Your task to perform on an android device: turn on showing notifications on the lock screen Image 0: 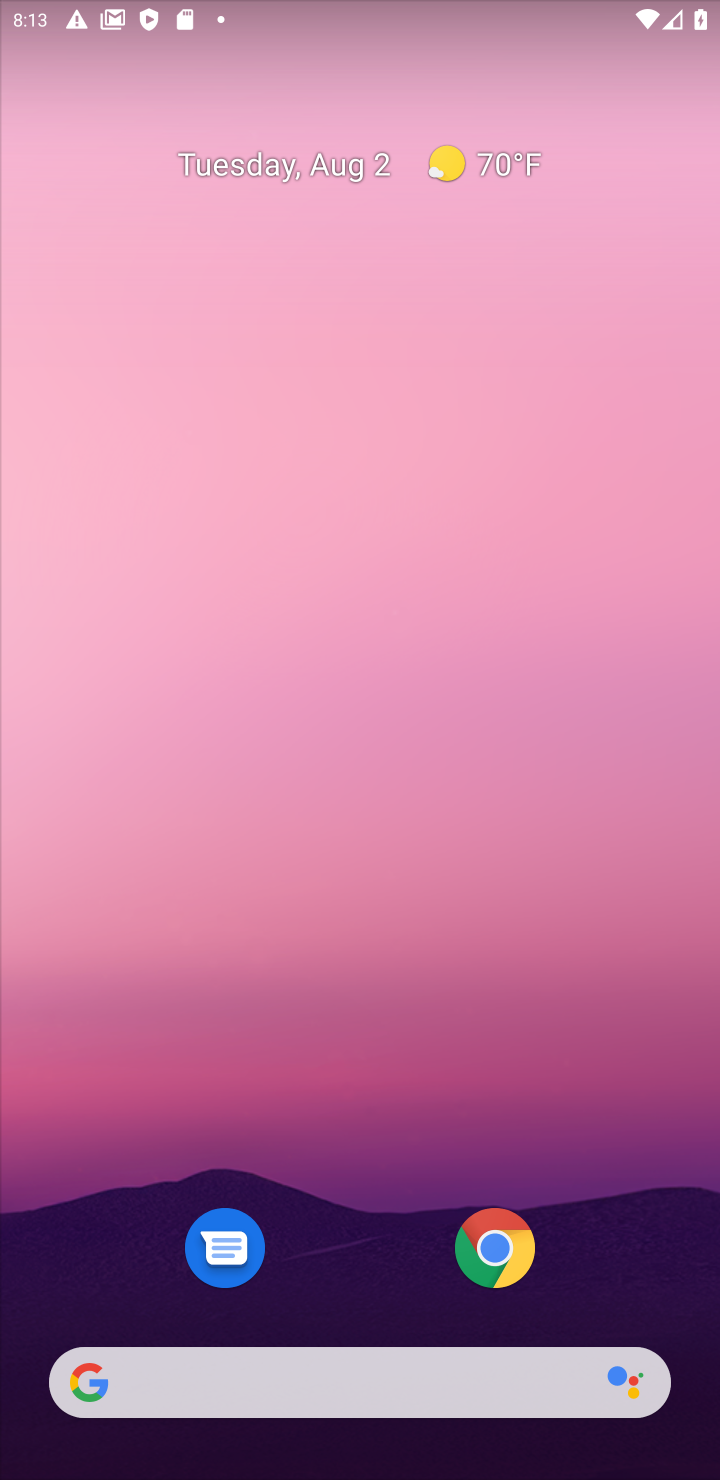
Step 0: press home button
Your task to perform on an android device: turn on showing notifications on the lock screen Image 1: 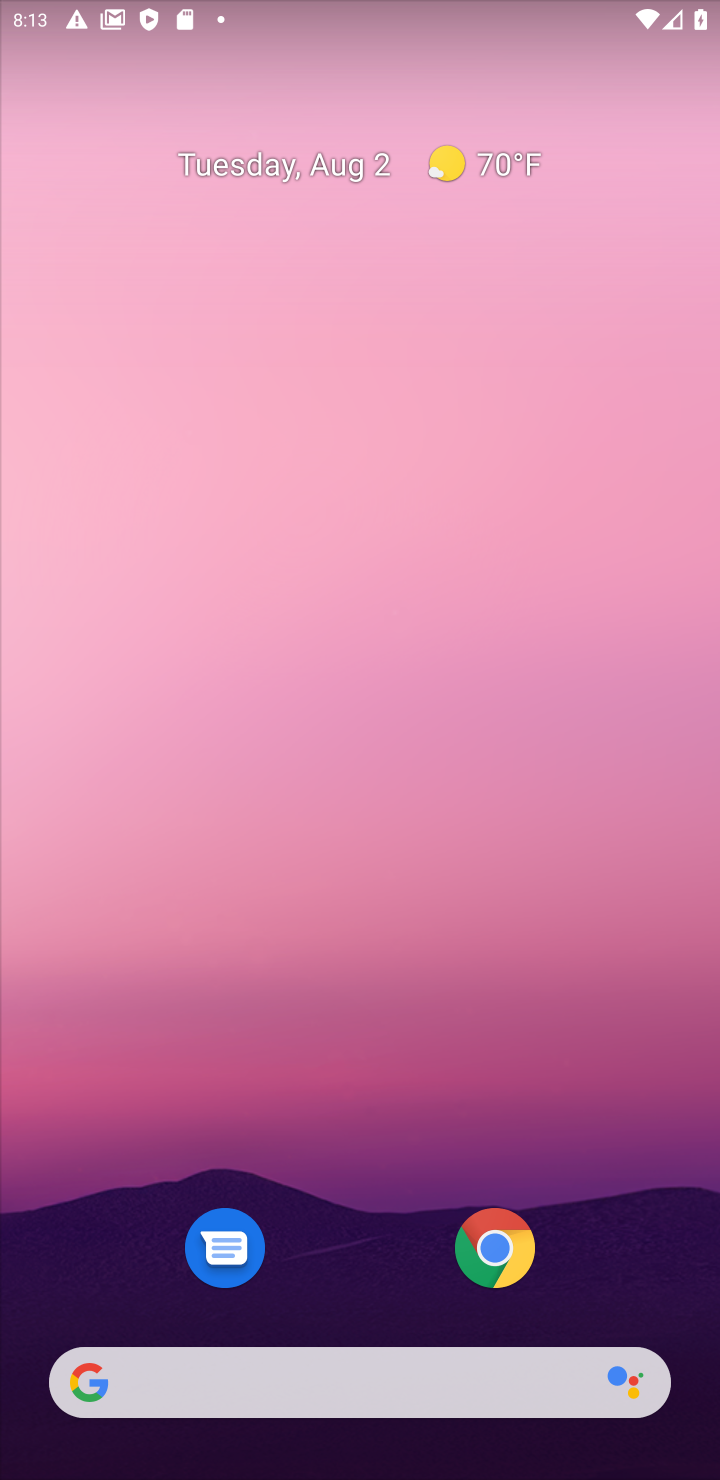
Step 1: drag from (340, 1282) to (394, 147)
Your task to perform on an android device: turn on showing notifications on the lock screen Image 2: 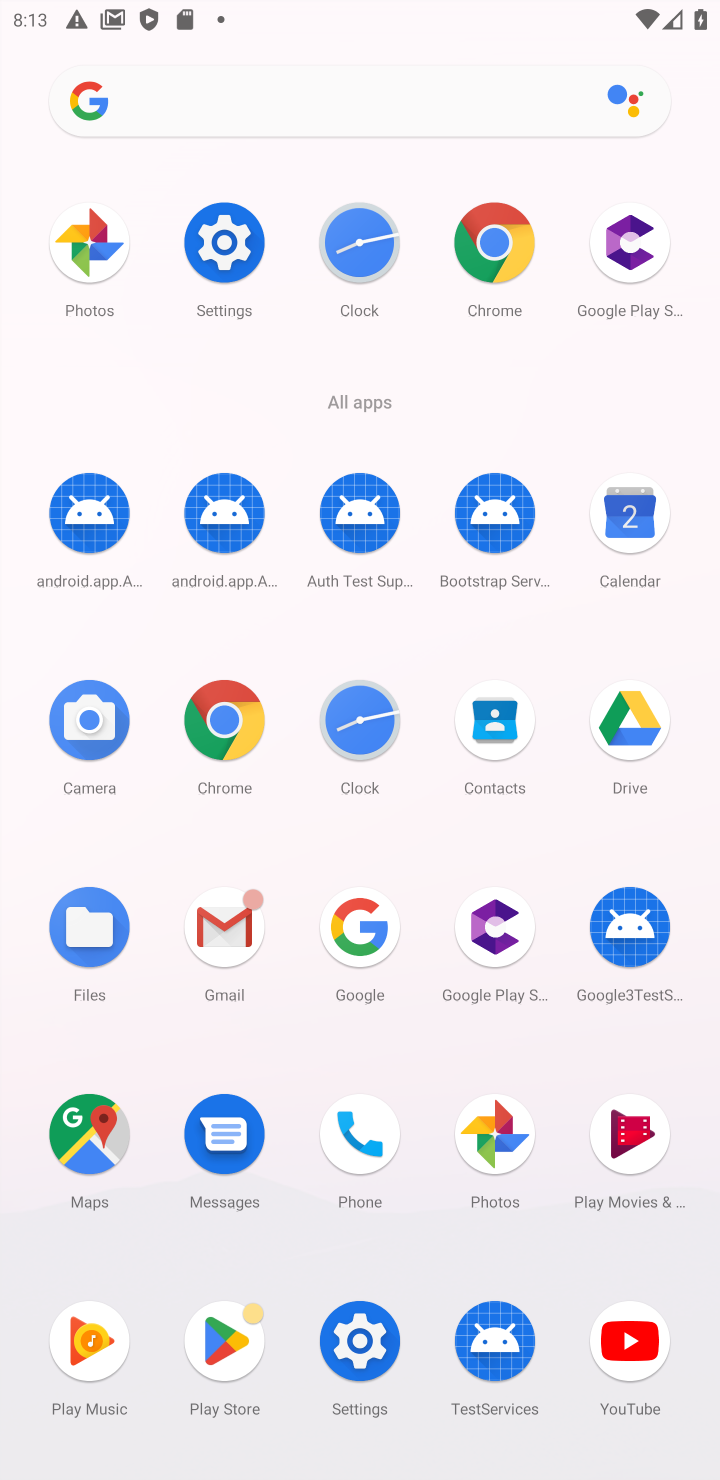
Step 2: click (341, 1334)
Your task to perform on an android device: turn on showing notifications on the lock screen Image 3: 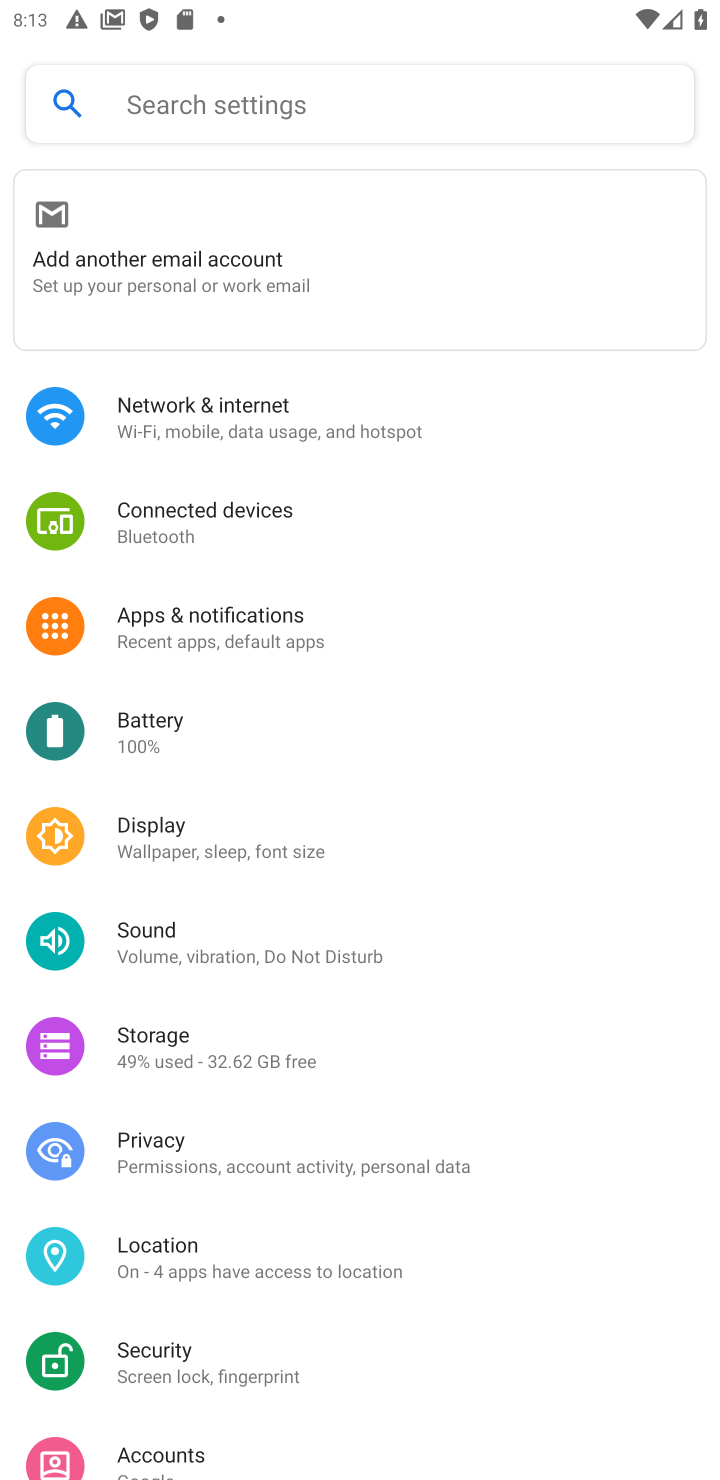
Step 3: click (155, 611)
Your task to perform on an android device: turn on showing notifications on the lock screen Image 4: 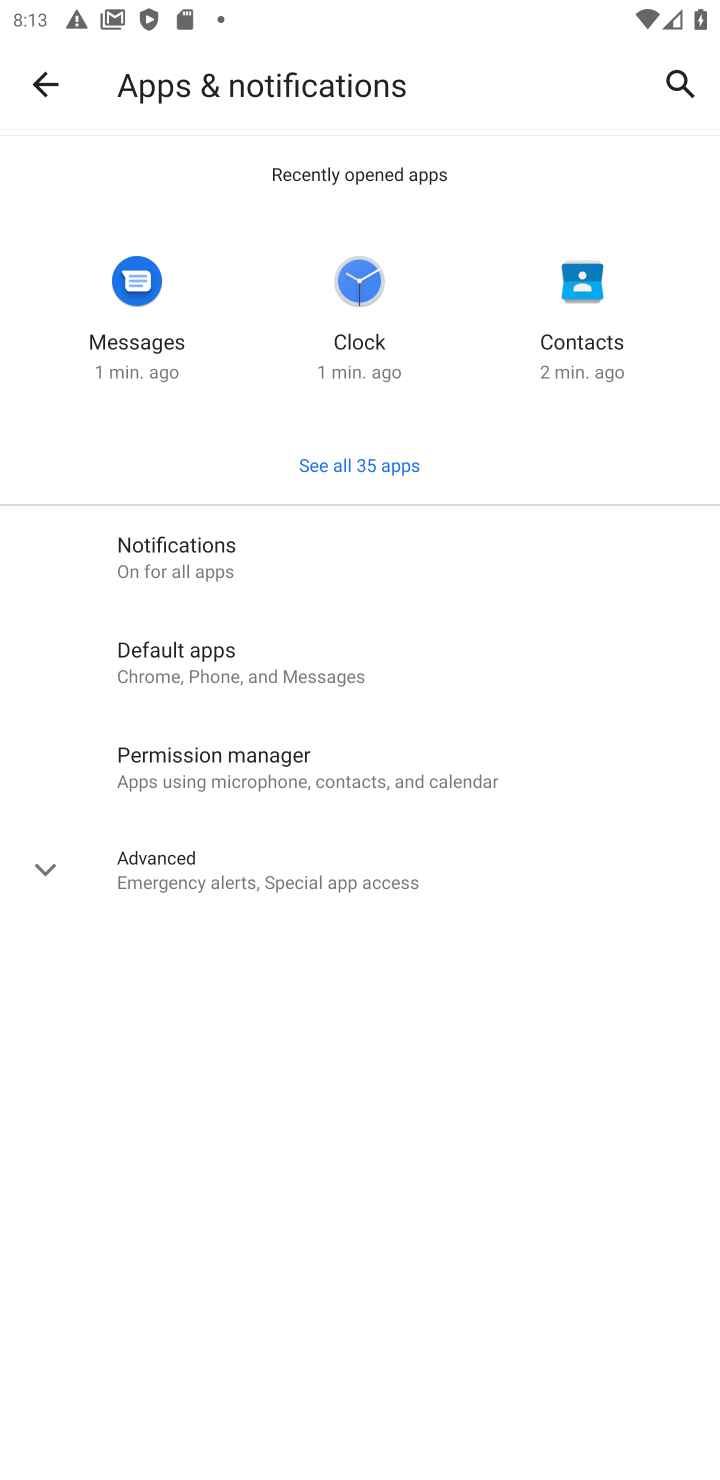
Step 4: click (173, 545)
Your task to perform on an android device: turn on showing notifications on the lock screen Image 5: 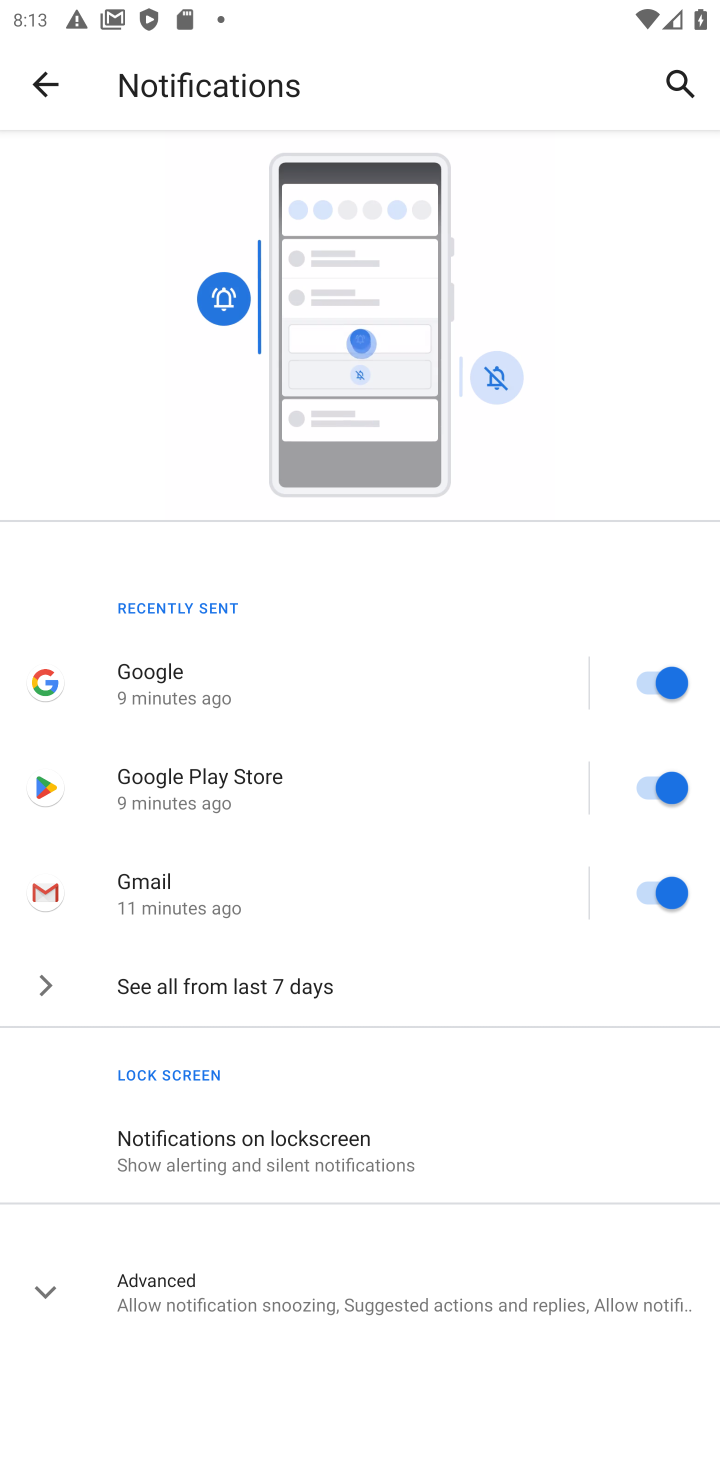
Step 5: click (176, 1151)
Your task to perform on an android device: turn on showing notifications on the lock screen Image 6: 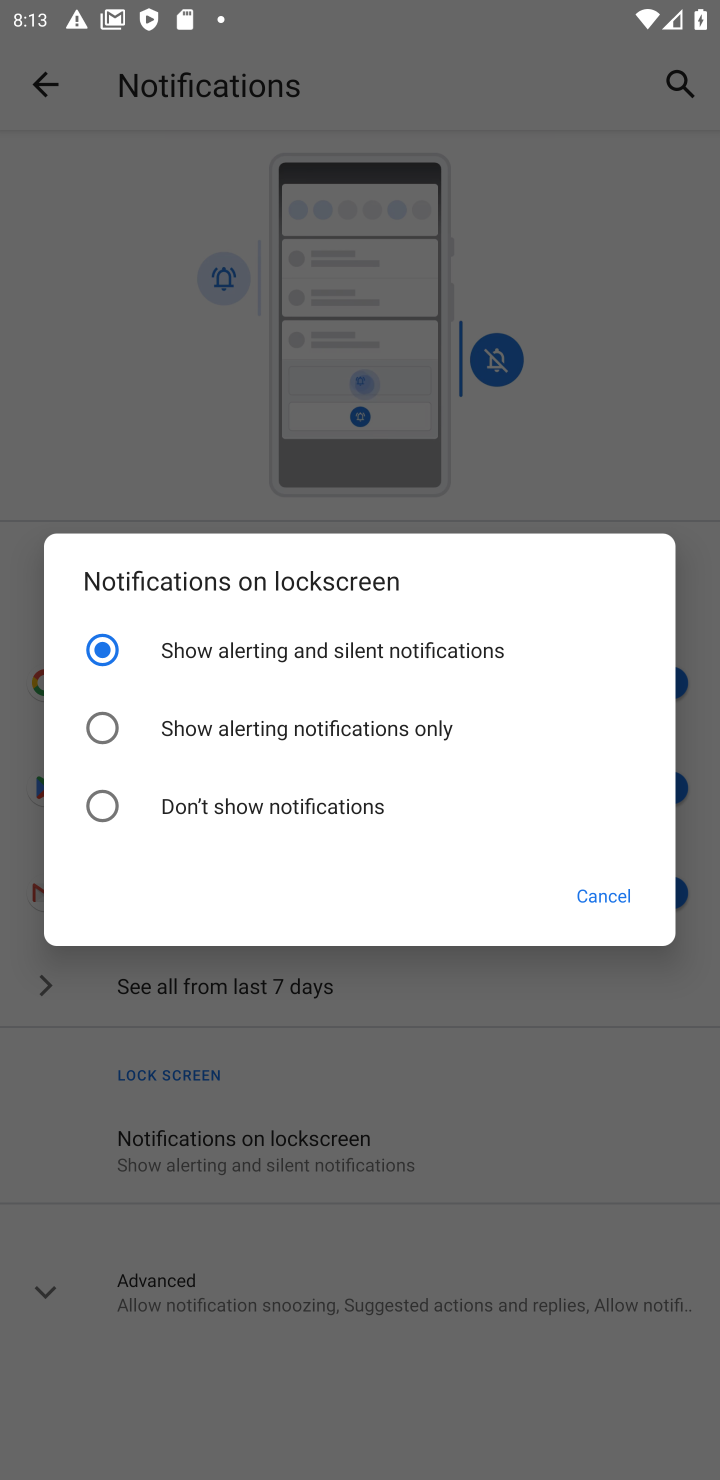
Step 6: task complete